Your task to perform on an android device: snooze an email in the gmail app Image 0: 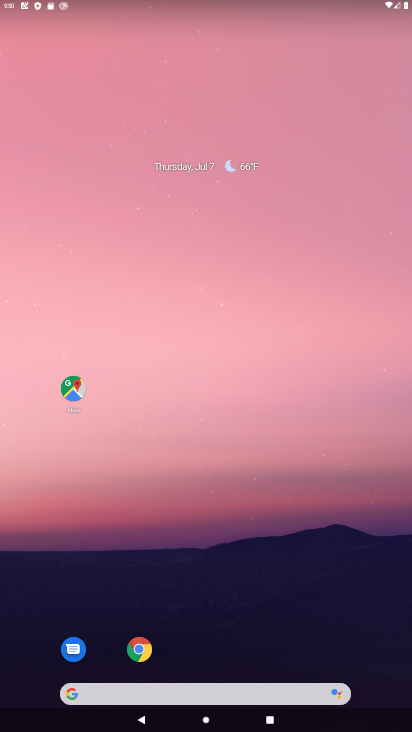
Step 0: click (218, 638)
Your task to perform on an android device: snooze an email in the gmail app Image 1: 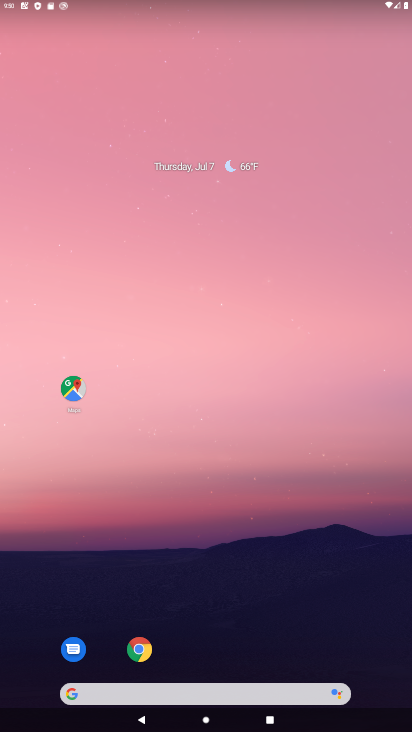
Step 1: click (173, 11)
Your task to perform on an android device: snooze an email in the gmail app Image 2: 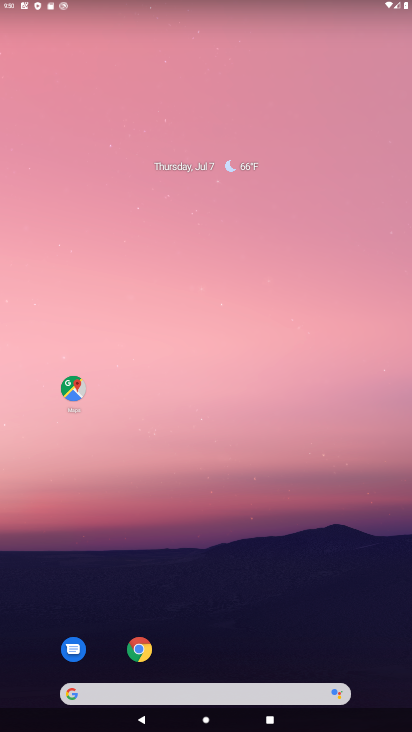
Step 2: drag from (208, 605) to (244, 117)
Your task to perform on an android device: snooze an email in the gmail app Image 3: 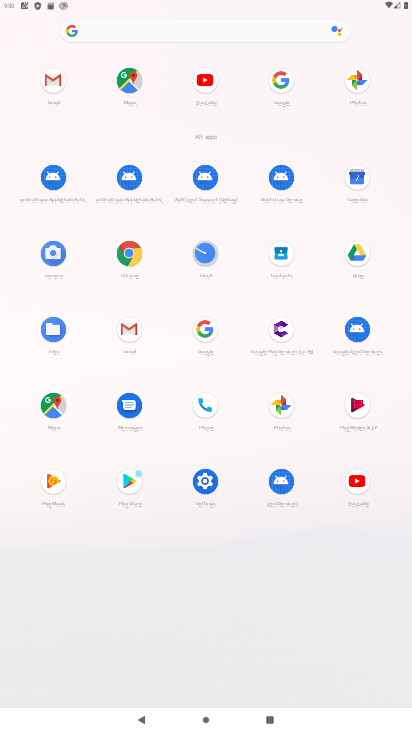
Step 3: click (122, 343)
Your task to perform on an android device: snooze an email in the gmail app Image 4: 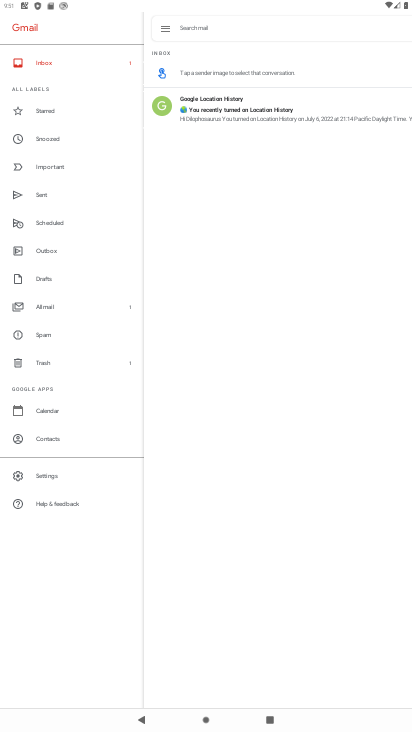
Step 4: click (220, 96)
Your task to perform on an android device: snooze an email in the gmail app Image 5: 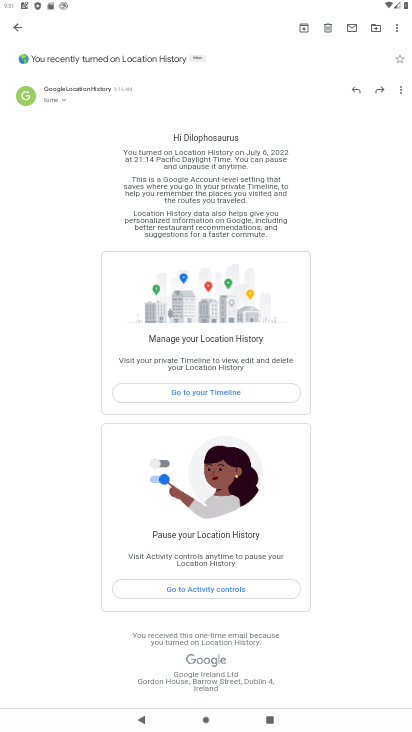
Step 5: click (397, 24)
Your task to perform on an android device: snooze an email in the gmail app Image 6: 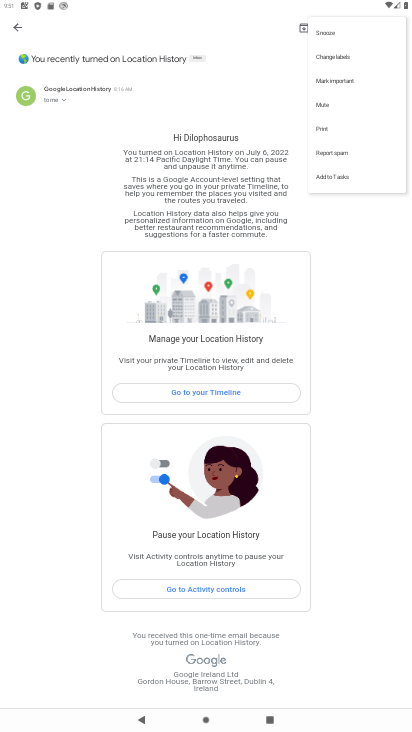
Step 6: click (324, 36)
Your task to perform on an android device: snooze an email in the gmail app Image 7: 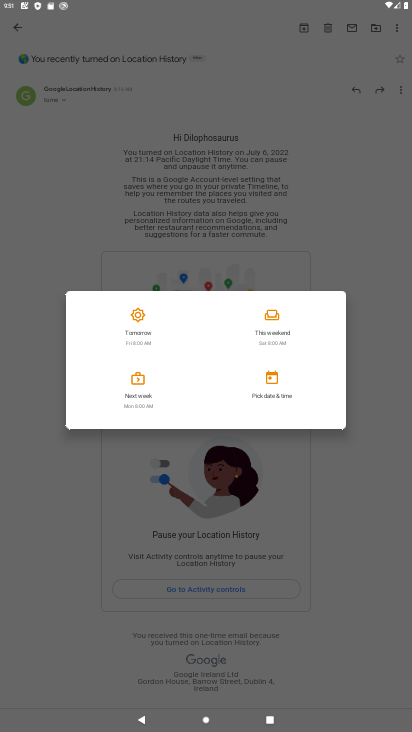
Step 7: click (134, 334)
Your task to perform on an android device: snooze an email in the gmail app Image 8: 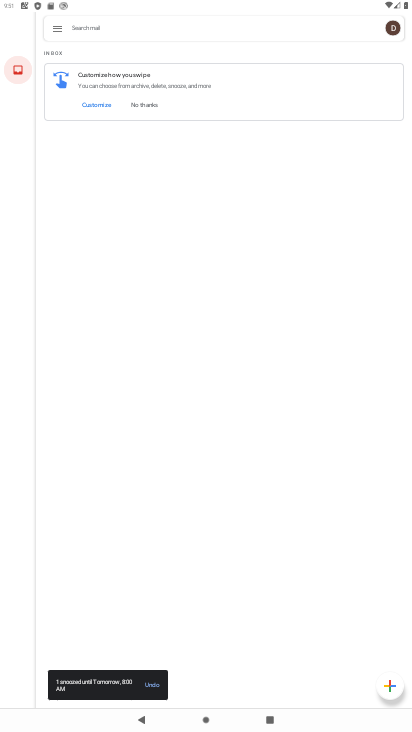
Step 8: task complete